Your task to perform on an android device: check the backup settings in the google photos Image 0: 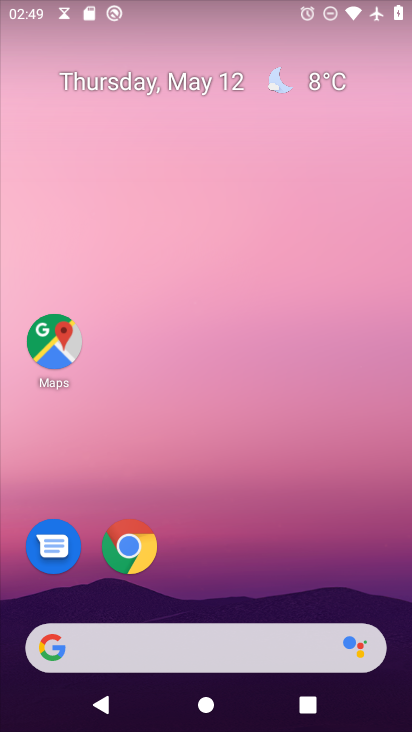
Step 0: drag from (155, 656) to (293, 215)
Your task to perform on an android device: check the backup settings in the google photos Image 1: 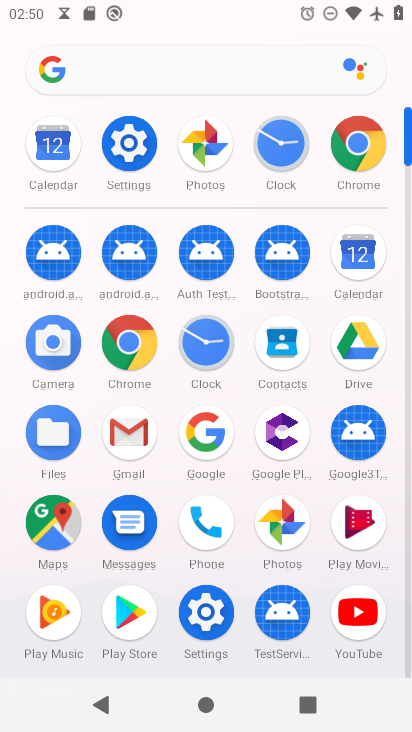
Step 1: click (289, 527)
Your task to perform on an android device: check the backup settings in the google photos Image 2: 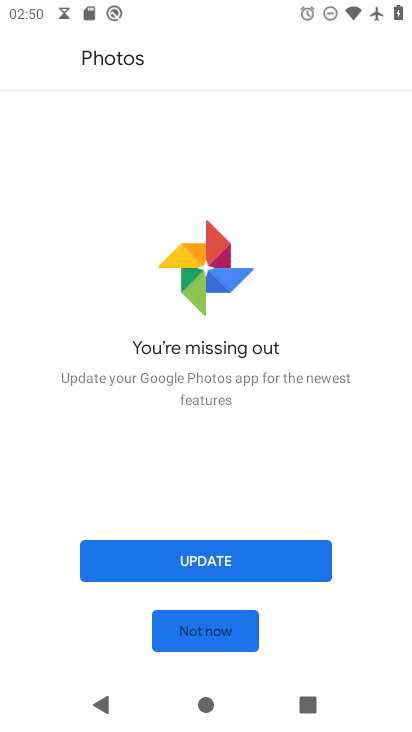
Step 2: click (226, 567)
Your task to perform on an android device: check the backup settings in the google photos Image 3: 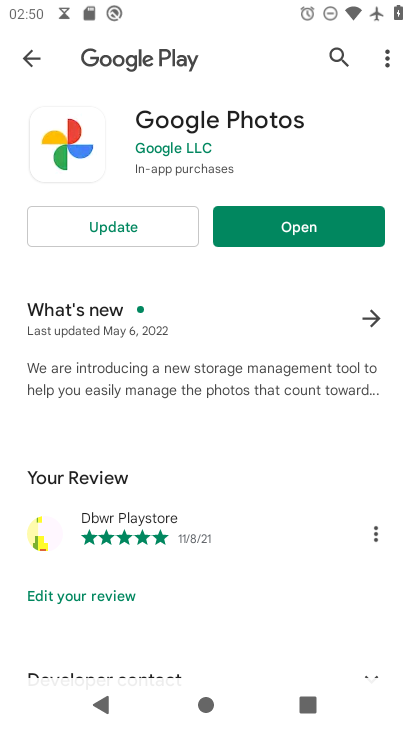
Step 3: click (297, 230)
Your task to perform on an android device: check the backup settings in the google photos Image 4: 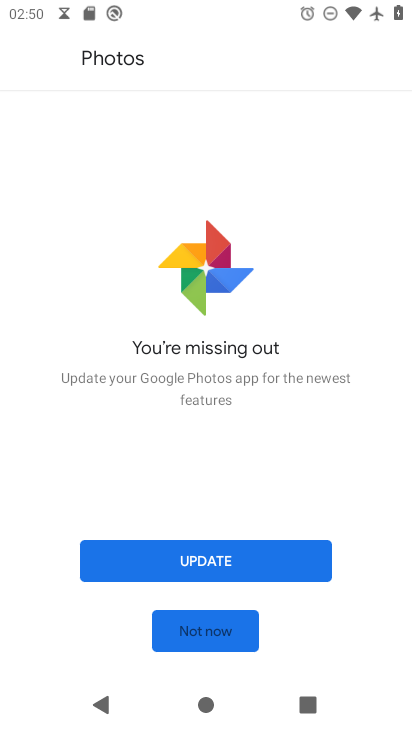
Step 4: click (239, 573)
Your task to perform on an android device: check the backup settings in the google photos Image 5: 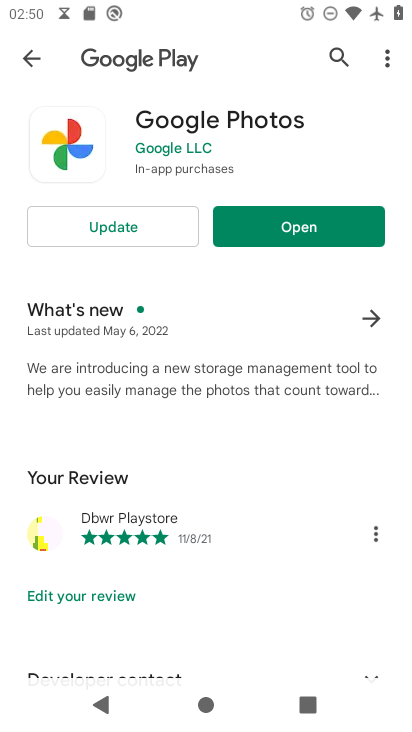
Step 5: click (149, 223)
Your task to perform on an android device: check the backup settings in the google photos Image 6: 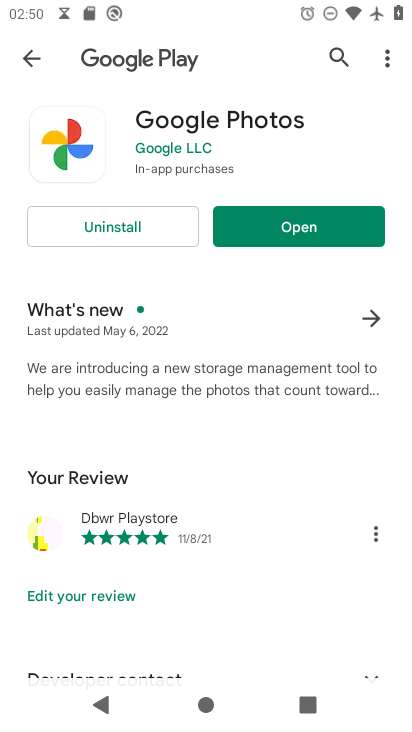
Step 6: click (324, 229)
Your task to perform on an android device: check the backup settings in the google photos Image 7: 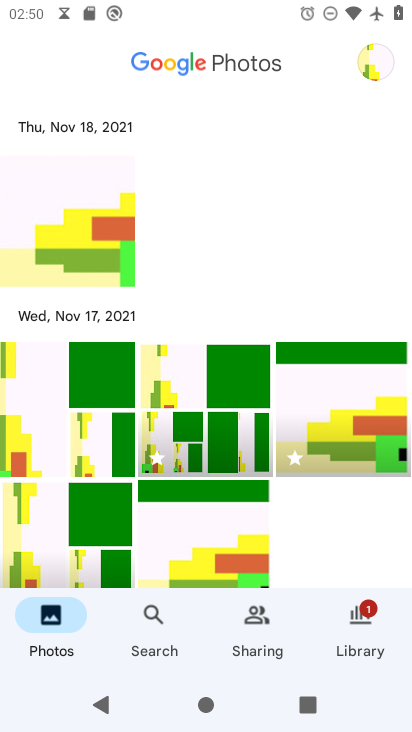
Step 7: click (376, 60)
Your task to perform on an android device: check the backup settings in the google photos Image 8: 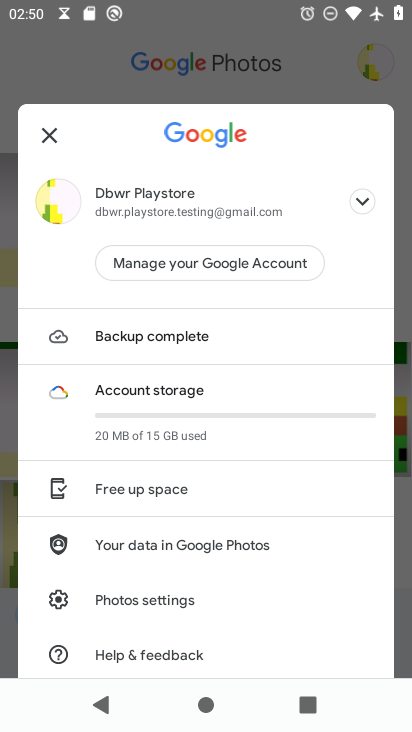
Step 8: click (141, 608)
Your task to perform on an android device: check the backup settings in the google photos Image 9: 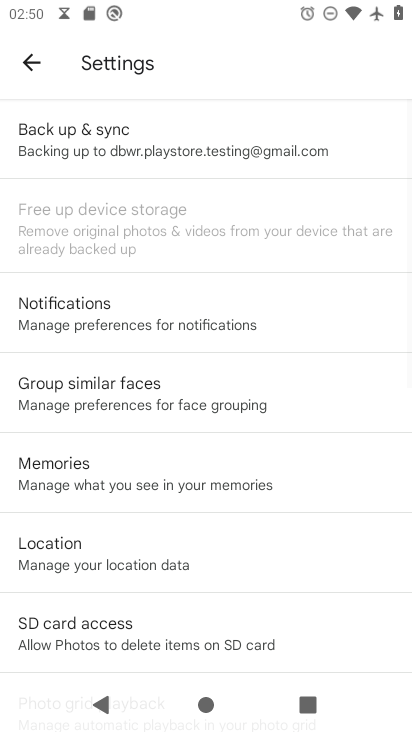
Step 9: click (173, 156)
Your task to perform on an android device: check the backup settings in the google photos Image 10: 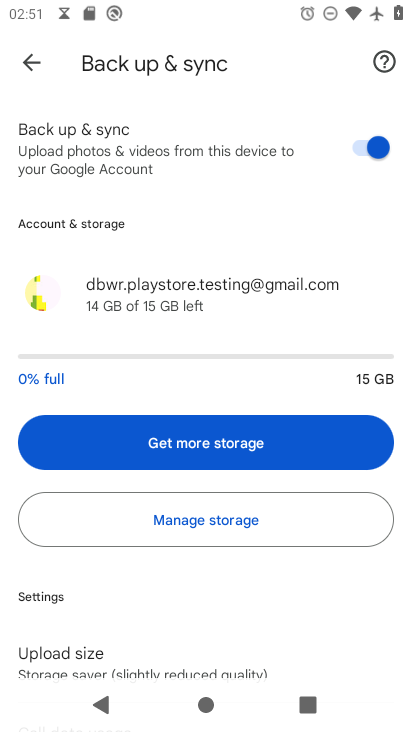
Step 10: task complete